Your task to perform on an android device: make emails show in primary in the gmail app Image 0: 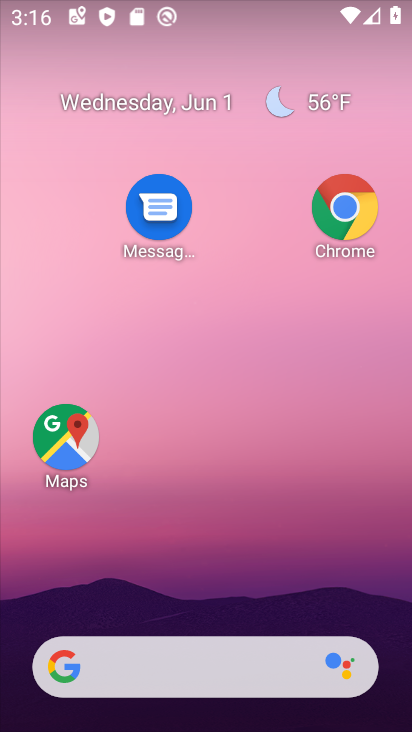
Step 0: drag from (204, 530) to (264, 145)
Your task to perform on an android device: make emails show in primary in the gmail app Image 1: 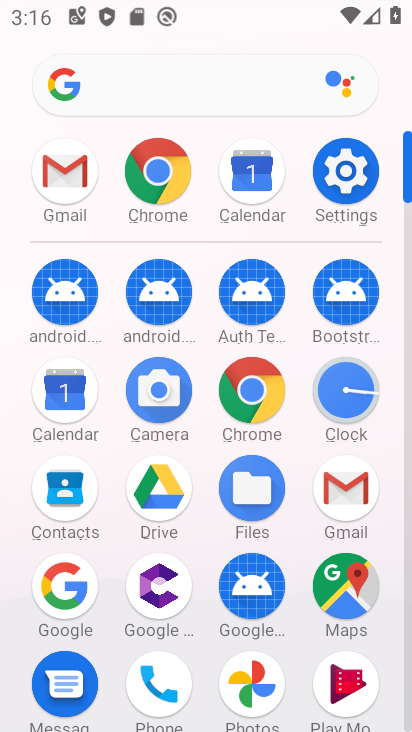
Step 1: click (346, 474)
Your task to perform on an android device: make emails show in primary in the gmail app Image 2: 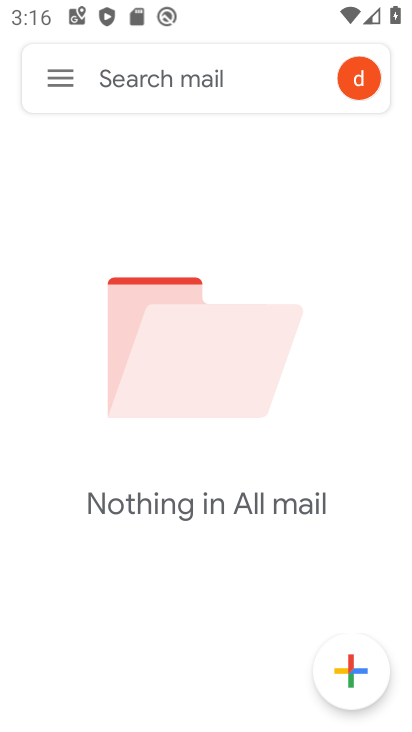
Step 2: drag from (284, 493) to (284, 1)
Your task to perform on an android device: make emails show in primary in the gmail app Image 3: 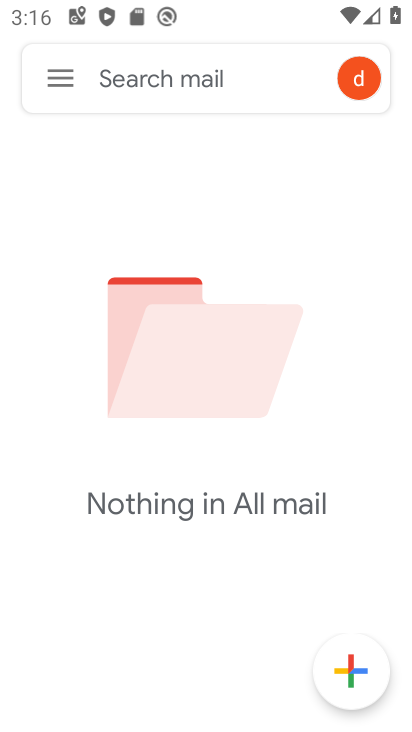
Step 3: click (72, 76)
Your task to perform on an android device: make emails show in primary in the gmail app Image 4: 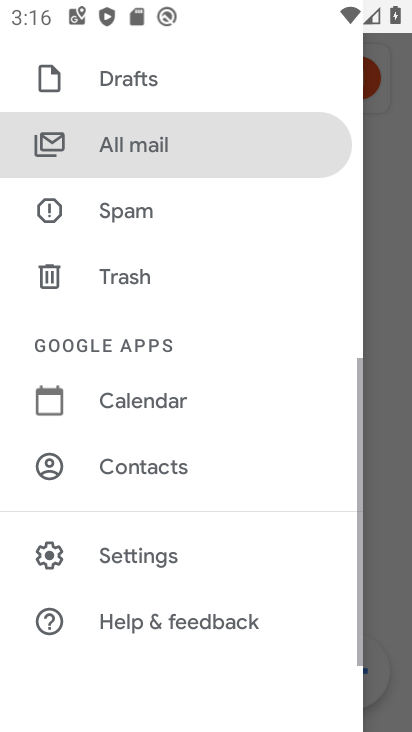
Step 4: drag from (136, 139) to (213, 729)
Your task to perform on an android device: make emails show in primary in the gmail app Image 5: 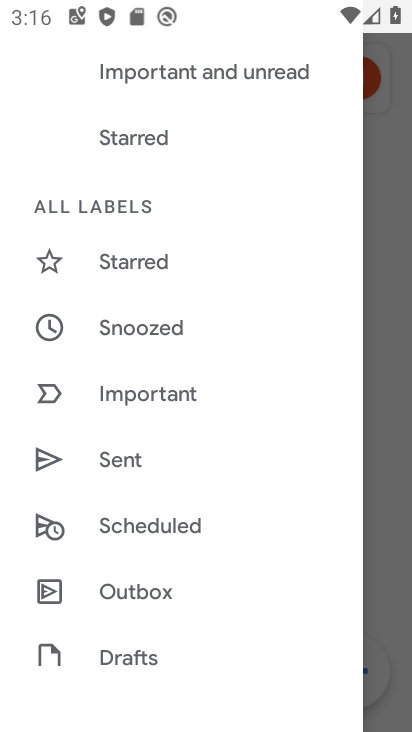
Step 5: drag from (188, 115) to (208, 731)
Your task to perform on an android device: make emails show in primary in the gmail app Image 6: 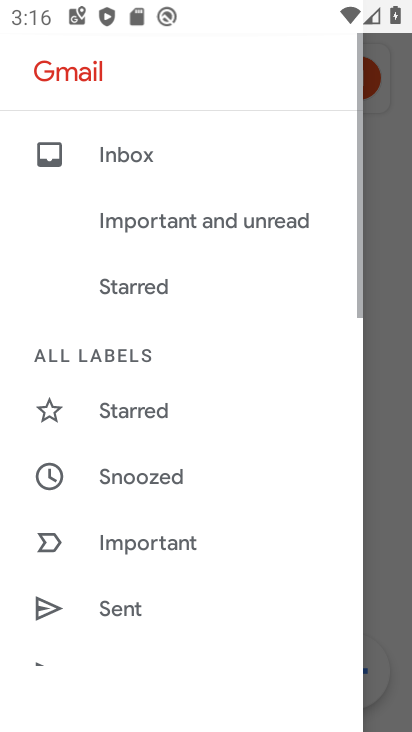
Step 6: click (127, 148)
Your task to perform on an android device: make emails show in primary in the gmail app Image 7: 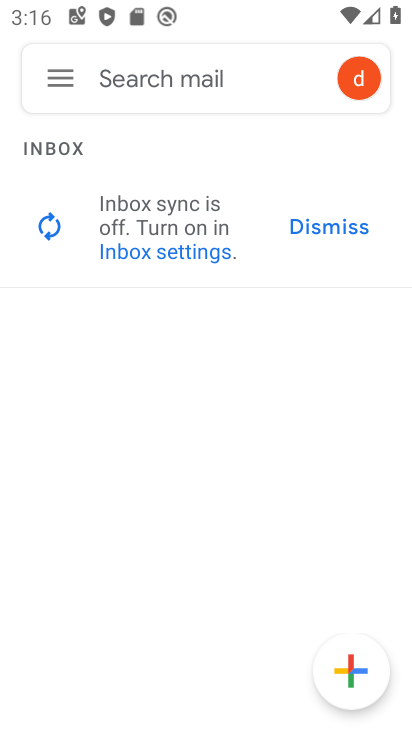
Step 7: task complete